Your task to perform on an android device: Open Google Maps and go to "Timeline" Image 0: 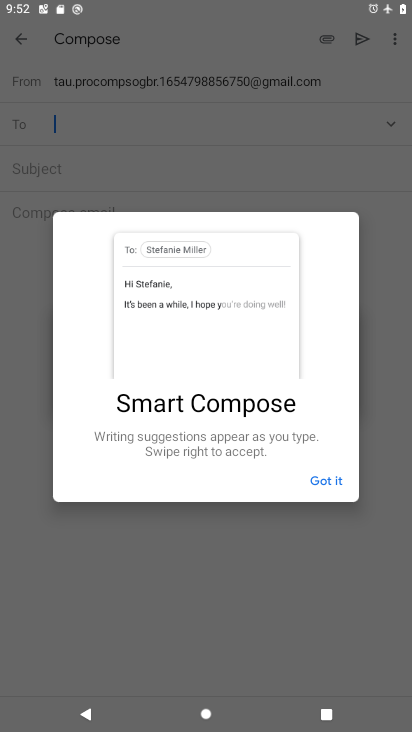
Step 0: click (366, 552)
Your task to perform on an android device: Open Google Maps and go to "Timeline" Image 1: 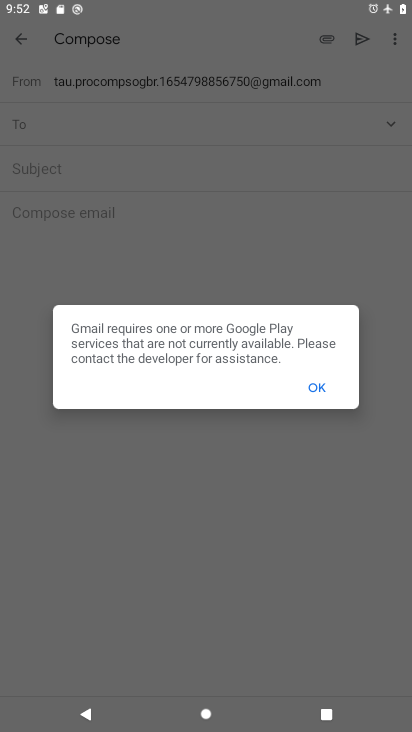
Step 1: click (326, 395)
Your task to perform on an android device: Open Google Maps and go to "Timeline" Image 2: 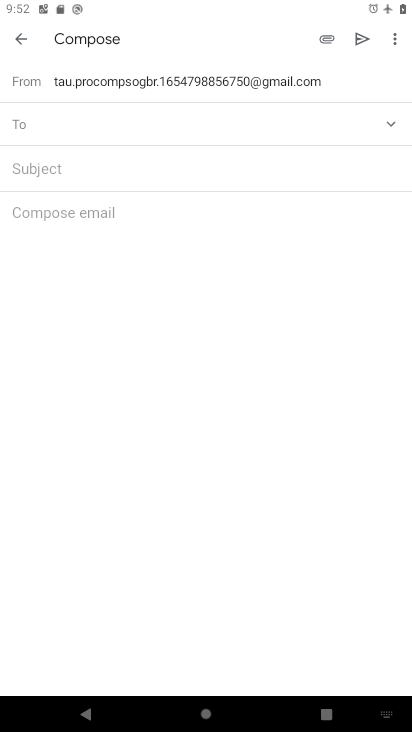
Step 2: press home button
Your task to perform on an android device: Open Google Maps and go to "Timeline" Image 3: 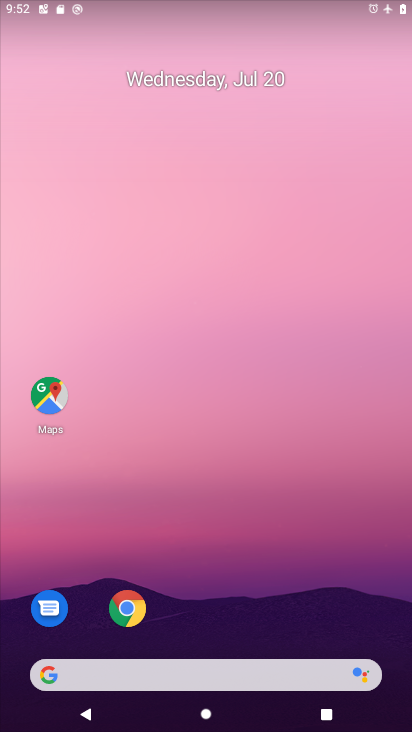
Step 3: drag from (176, 581) to (240, 316)
Your task to perform on an android device: Open Google Maps and go to "Timeline" Image 4: 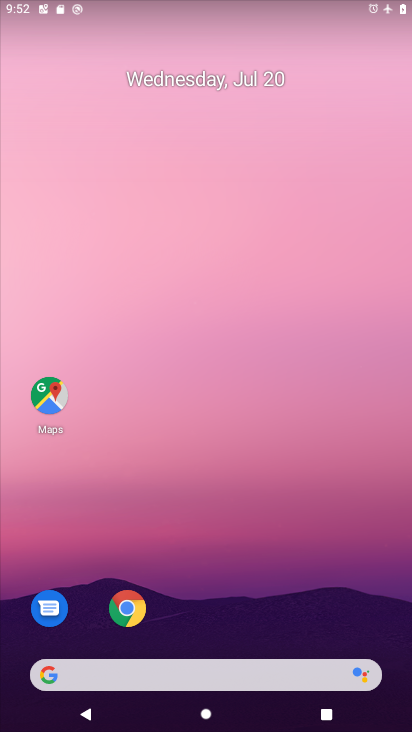
Step 4: drag from (207, 644) to (263, 140)
Your task to perform on an android device: Open Google Maps and go to "Timeline" Image 5: 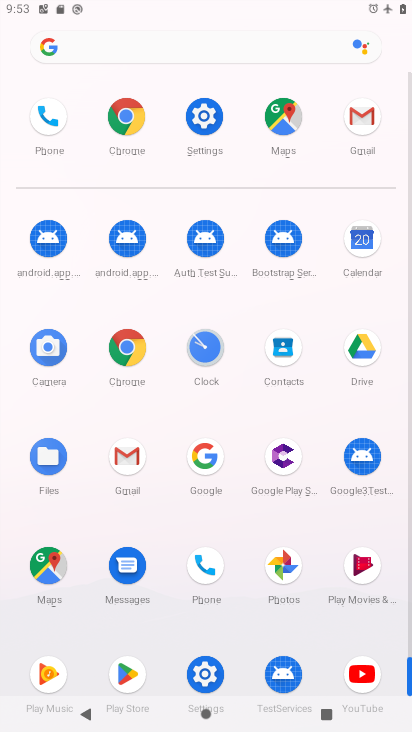
Step 5: click (276, 122)
Your task to perform on an android device: Open Google Maps and go to "Timeline" Image 6: 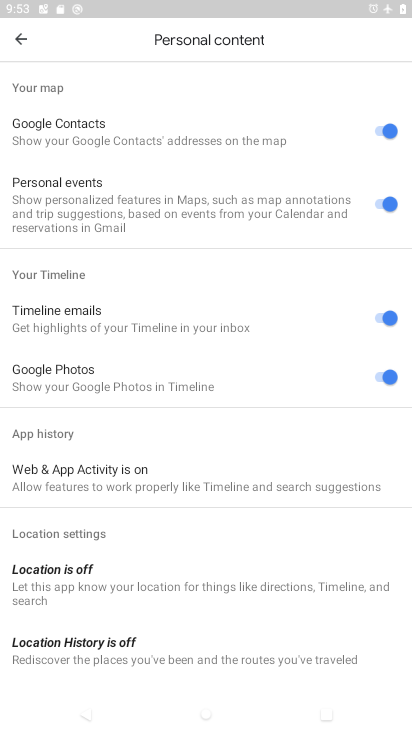
Step 6: click (22, 42)
Your task to perform on an android device: Open Google Maps and go to "Timeline" Image 7: 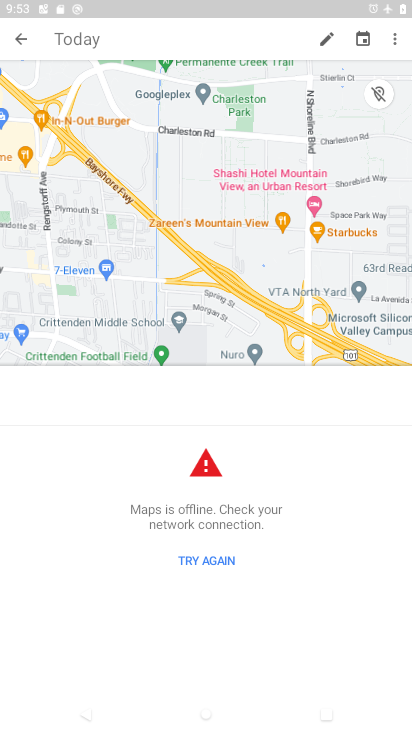
Step 7: task complete